Your task to perform on an android device: uninstall "Lyft - Rideshare, Bikes, Scooters & Transit" Image 0: 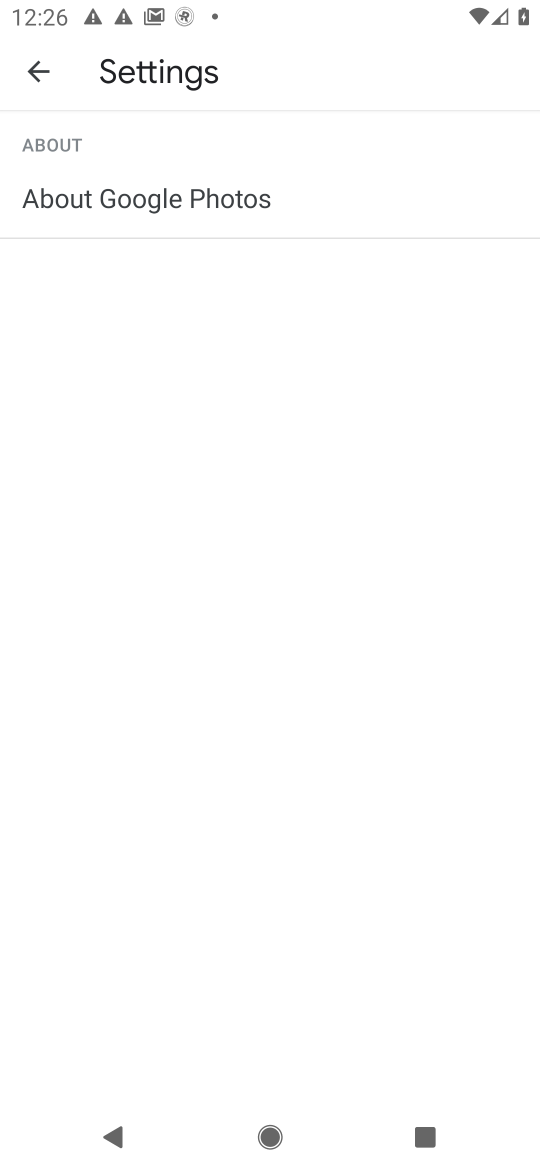
Step 0: press home button
Your task to perform on an android device: uninstall "Lyft - Rideshare, Bikes, Scooters & Transit" Image 1: 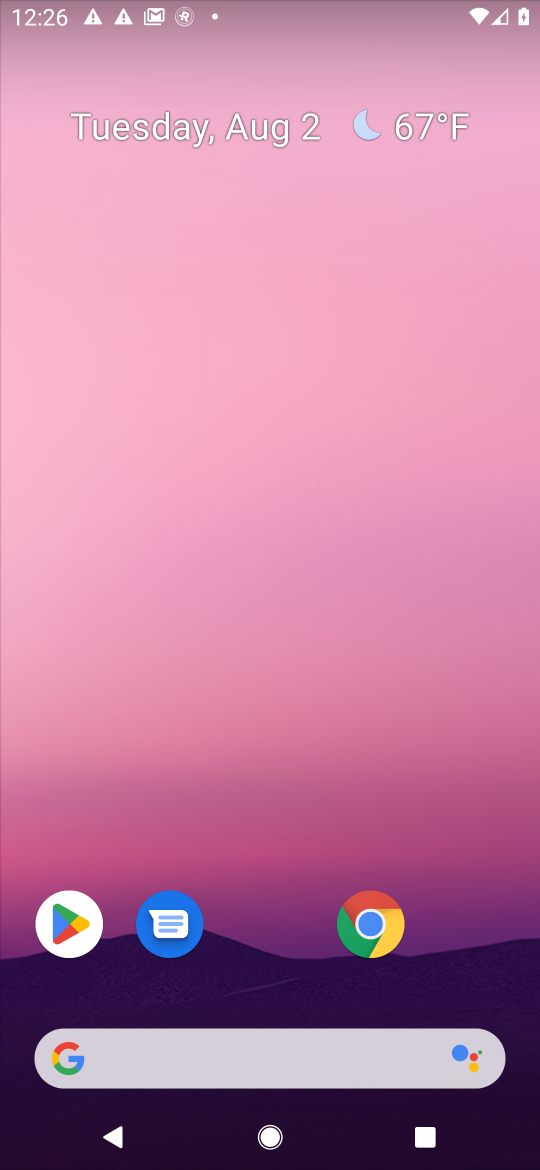
Step 1: drag from (270, 996) to (331, 151)
Your task to perform on an android device: uninstall "Lyft - Rideshare, Bikes, Scooters & Transit" Image 2: 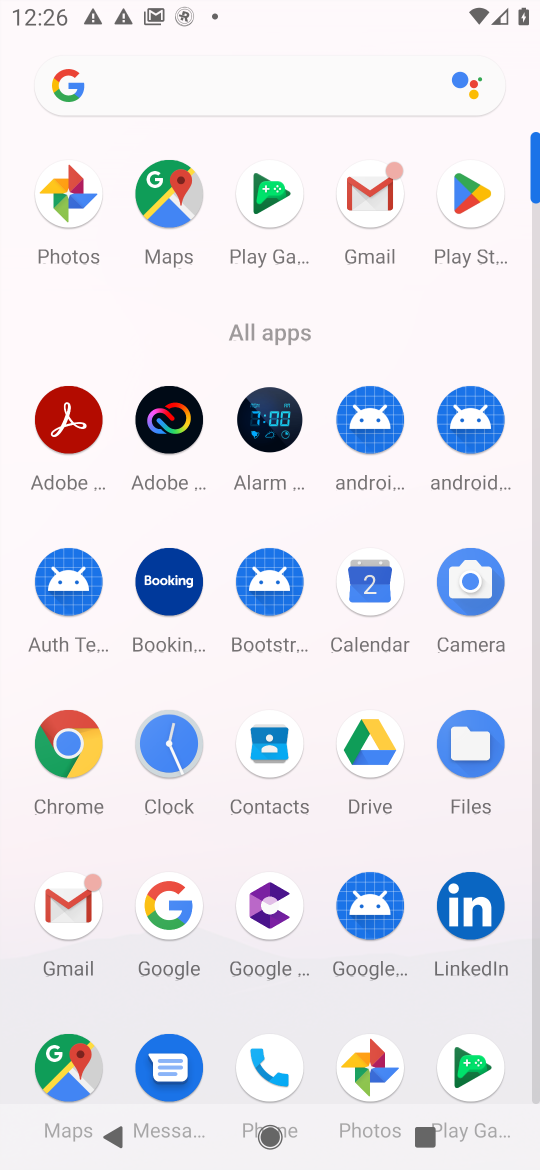
Step 2: click (464, 180)
Your task to perform on an android device: uninstall "Lyft - Rideshare, Bikes, Scooters & Transit" Image 3: 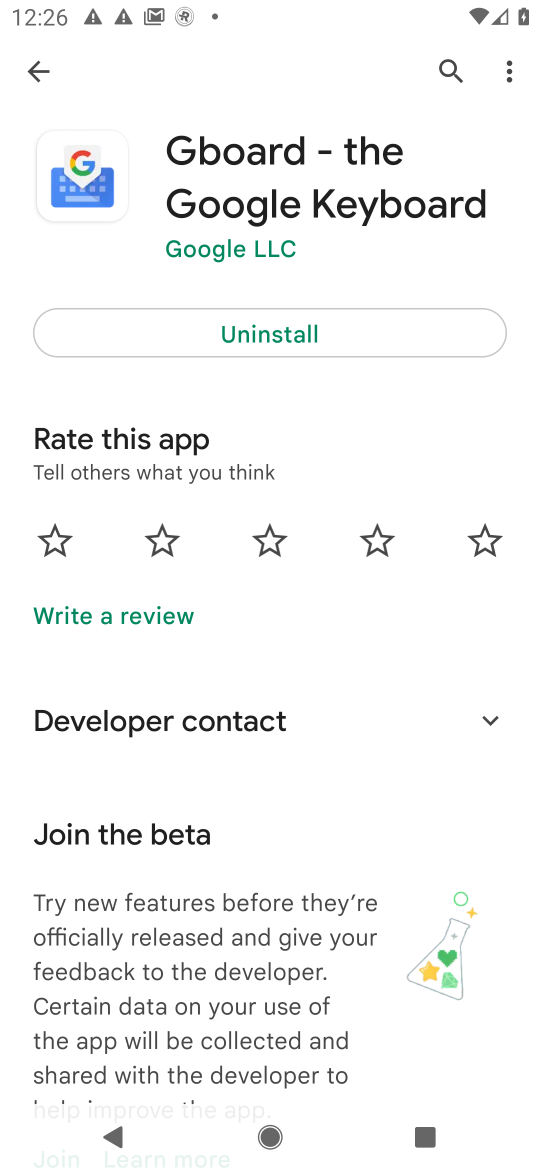
Step 3: click (446, 66)
Your task to perform on an android device: uninstall "Lyft - Rideshare, Bikes, Scooters & Transit" Image 4: 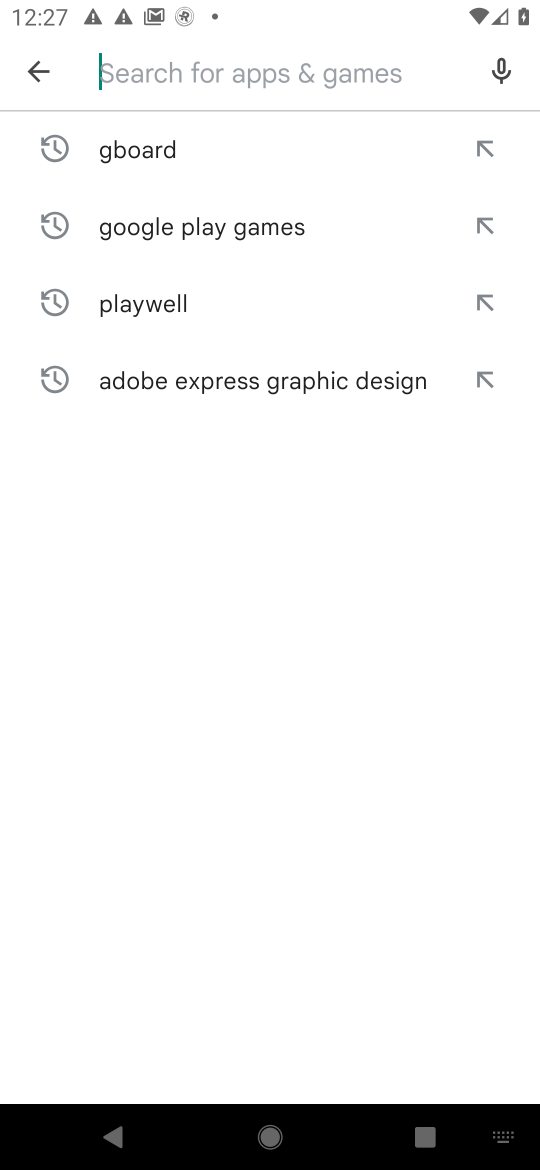
Step 4: type "lyft"
Your task to perform on an android device: uninstall "Lyft - Rideshare, Bikes, Scooters & Transit" Image 5: 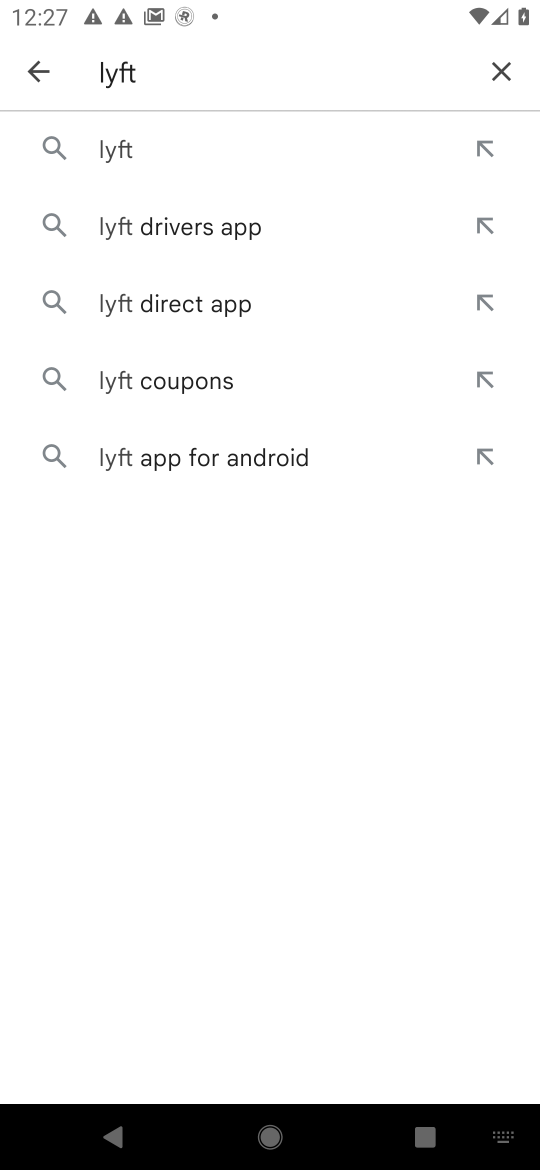
Step 5: click (184, 151)
Your task to perform on an android device: uninstall "Lyft - Rideshare, Bikes, Scooters & Transit" Image 6: 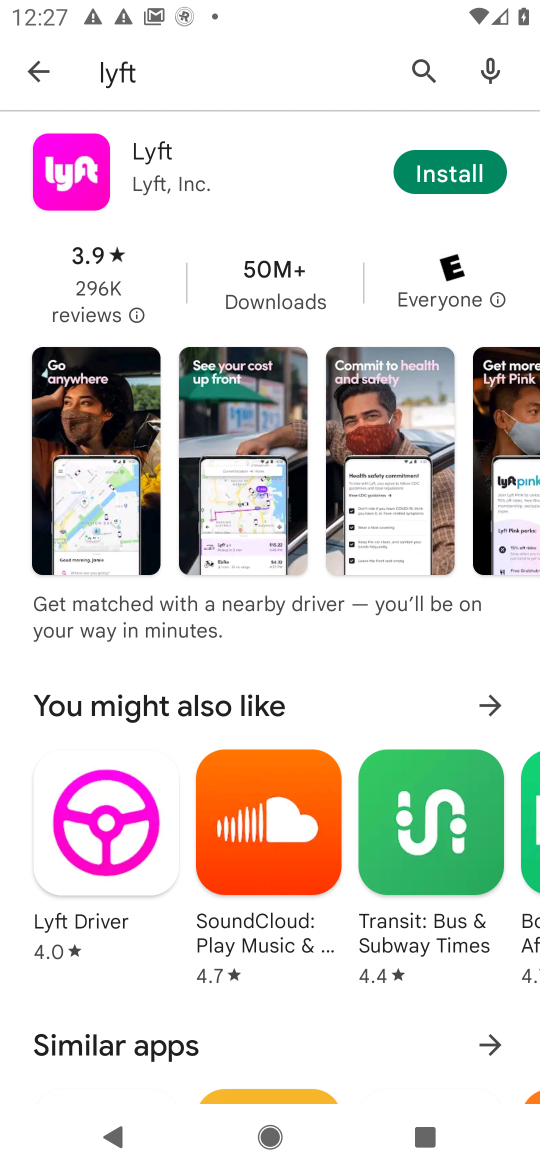
Step 6: click (219, 167)
Your task to perform on an android device: uninstall "Lyft - Rideshare, Bikes, Scooters & Transit" Image 7: 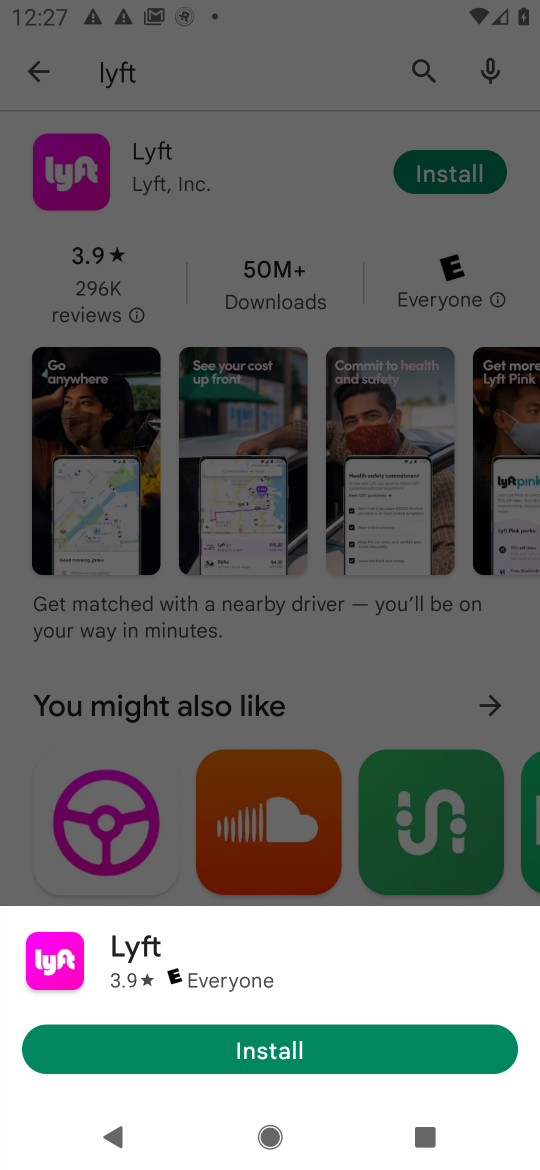
Step 7: task complete